Your task to perform on an android device: Go to privacy settings Image 0: 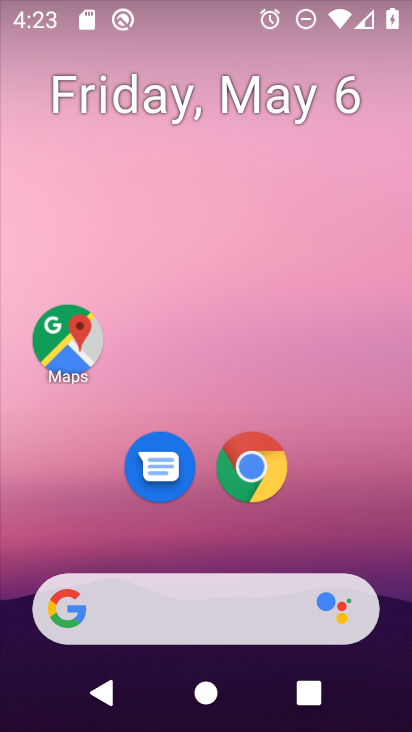
Step 0: drag from (352, 542) to (338, 13)
Your task to perform on an android device: Go to privacy settings Image 1: 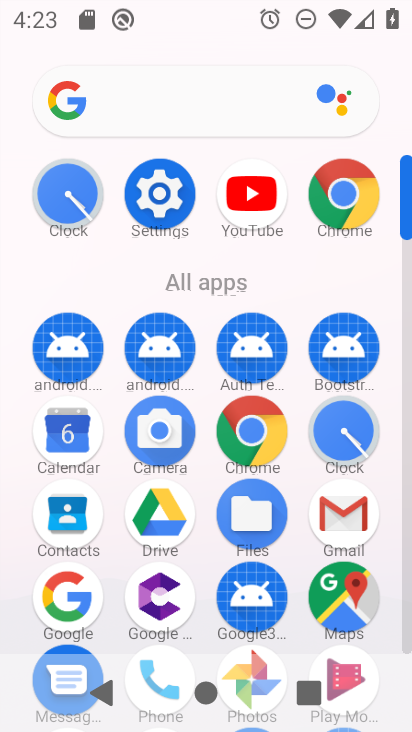
Step 1: click (182, 197)
Your task to perform on an android device: Go to privacy settings Image 2: 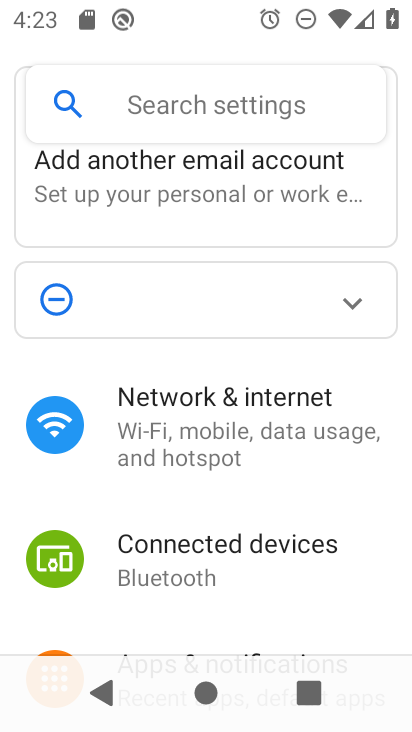
Step 2: drag from (226, 539) to (246, 181)
Your task to perform on an android device: Go to privacy settings Image 3: 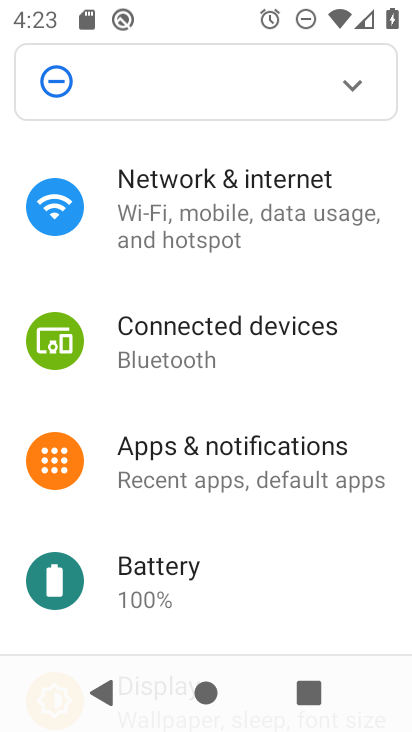
Step 3: drag from (231, 587) to (241, 122)
Your task to perform on an android device: Go to privacy settings Image 4: 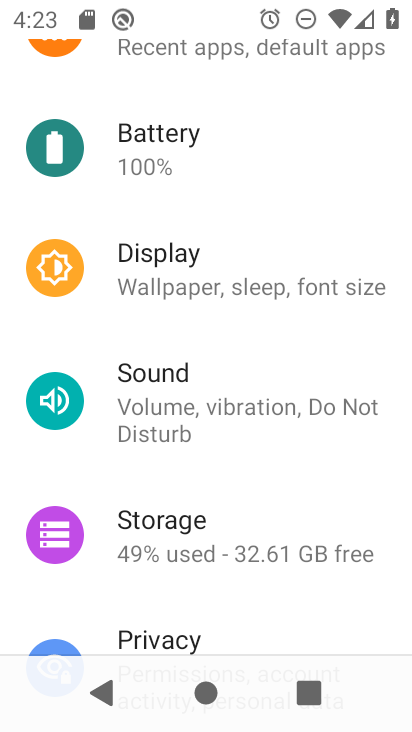
Step 4: click (138, 643)
Your task to perform on an android device: Go to privacy settings Image 5: 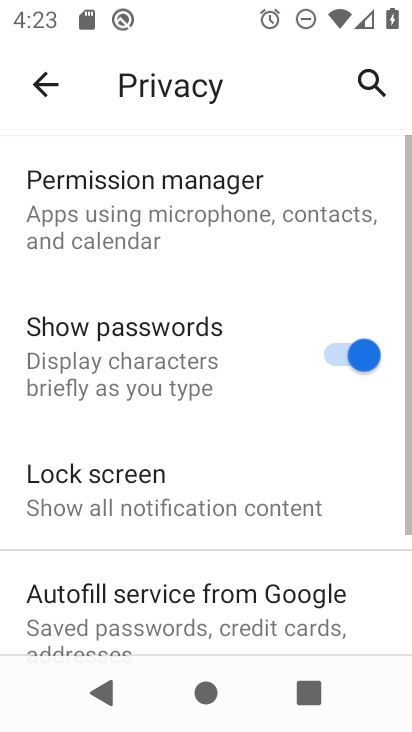
Step 5: task complete